Your task to perform on an android device: change alarm snooze length Image 0: 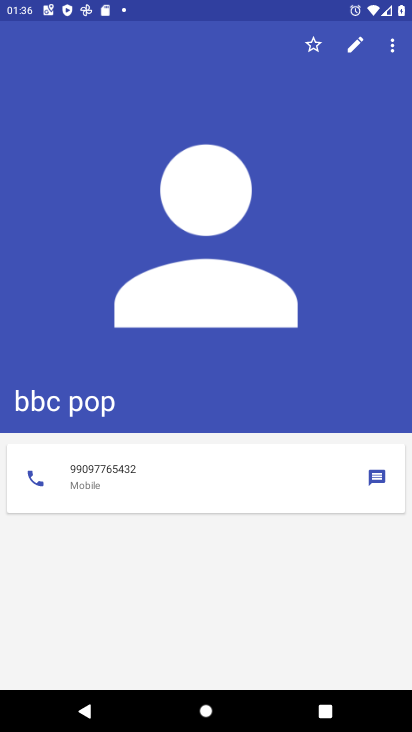
Step 0: press home button
Your task to perform on an android device: change alarm snooze length Image 1: 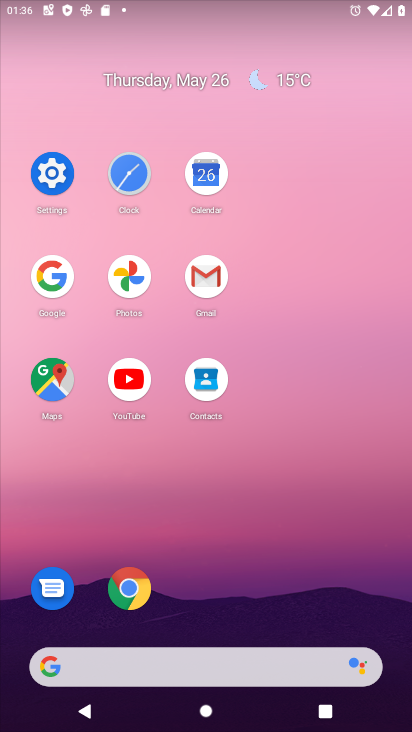
Step 1: click (122, 179)
Your task to perform on an android device: change alarm snooze length Image 2: 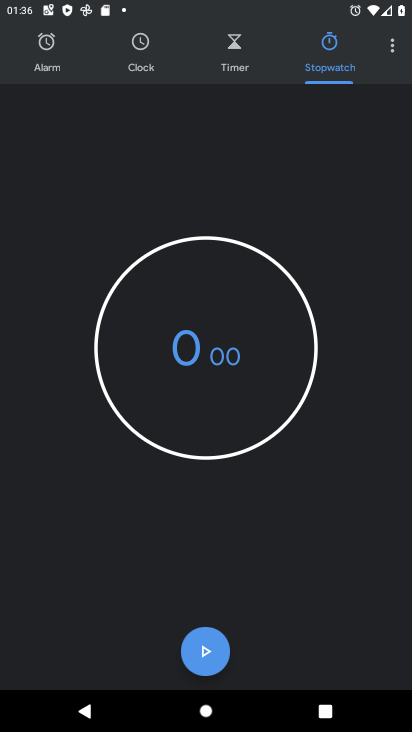
Step 2: click (379, 52)
Your task to perform on an android device: change alarm snooze length Image 3: 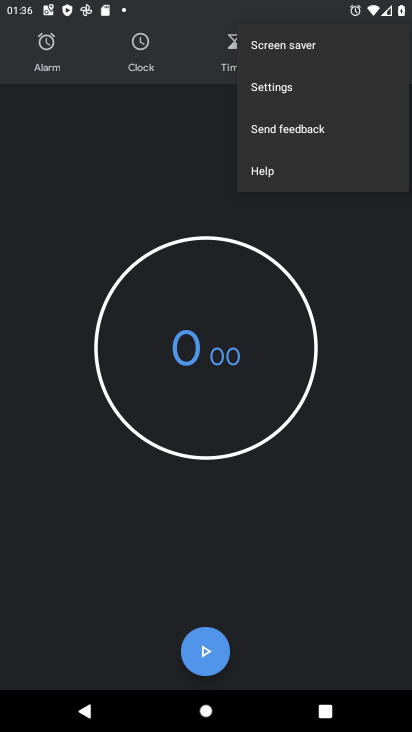
Step 3: click (300, 84)
Your task to perform on an android device: change alarm snooze length Image 4: 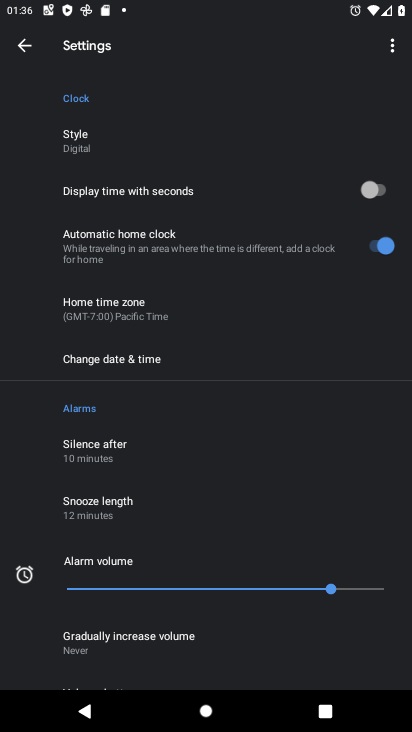
Step 4: click (165, 514)
Your task to perform on an android device: change alarm snooze length Image 5: 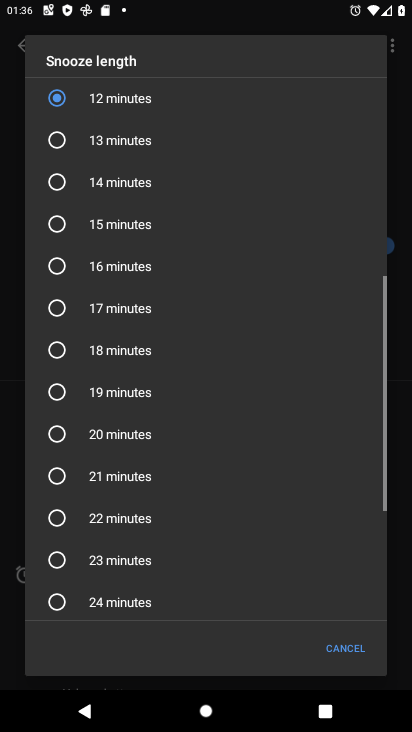
Step 5: click (118, 138)
Your task to perform on an android device: change alarm snooze length Image 6: 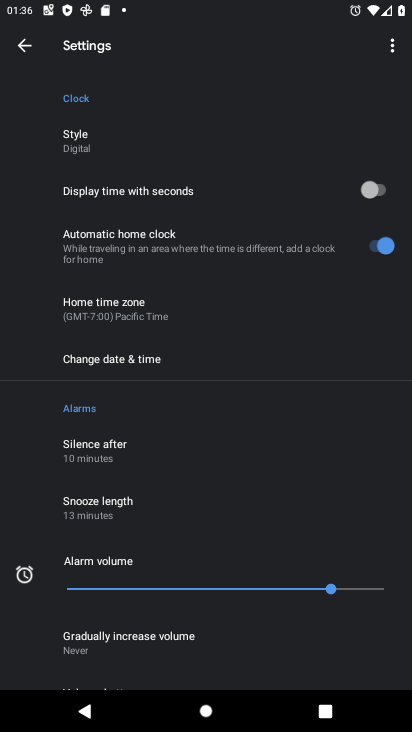
Step 6: task complete